Your task to perform on an android device: change timer sound Image 0: 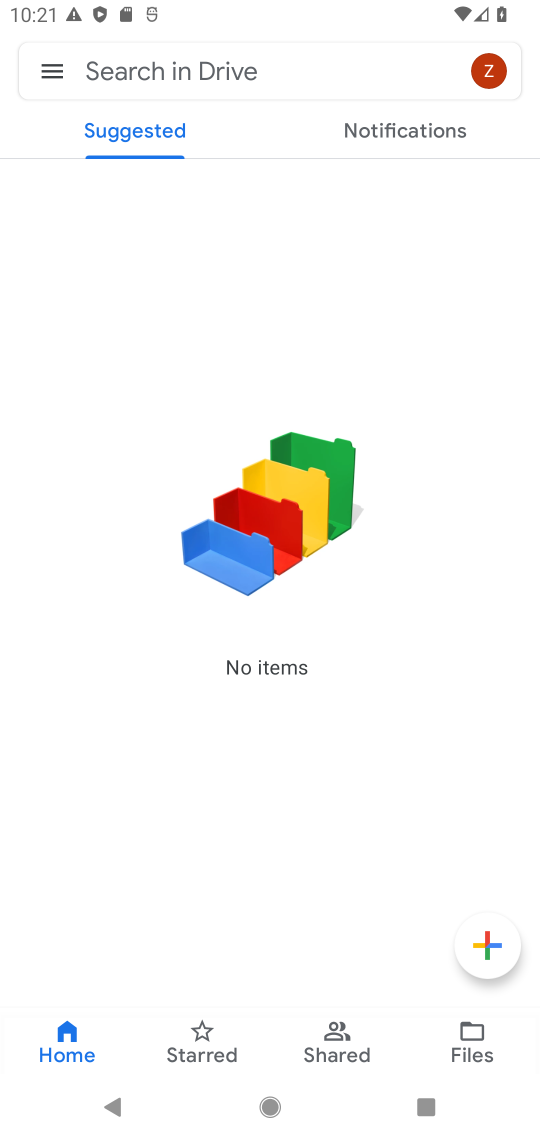
Step 0: press home button
Your task to perform on an android device: change timer sound Image 1: 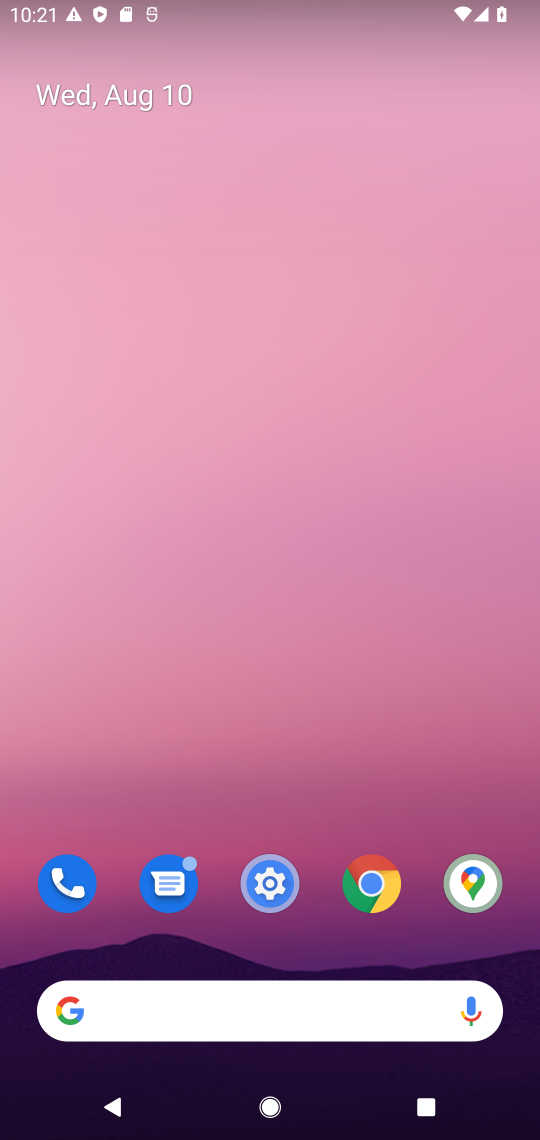
Step 1: drag from (306, 925) to (443, 246)
Your task to perform on an android device: change timer sound Image 2: 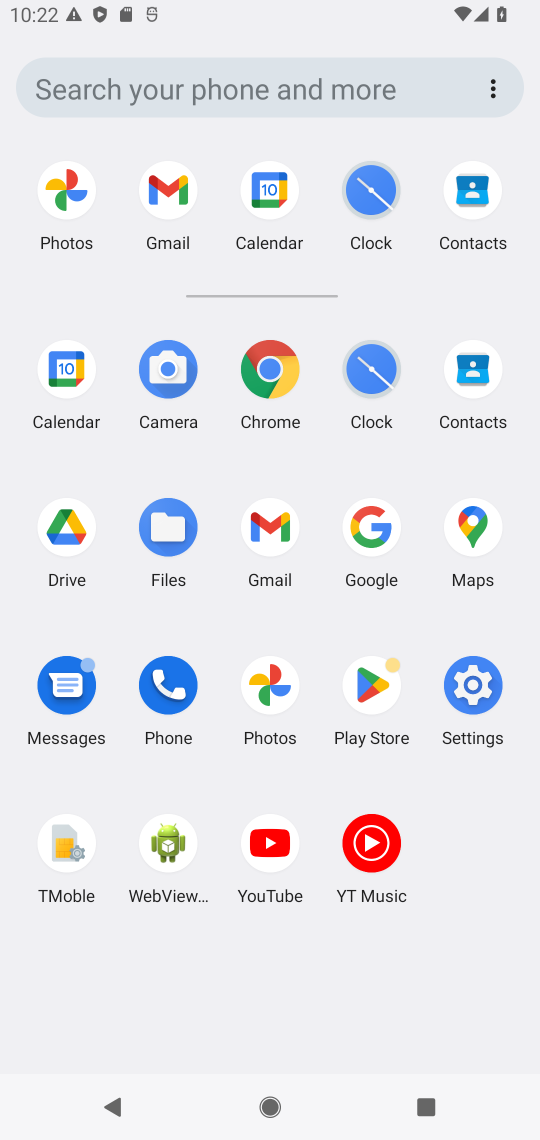
Step 2: click (382, 364)
Your task to perform on an android device: change timer sound Image 3: 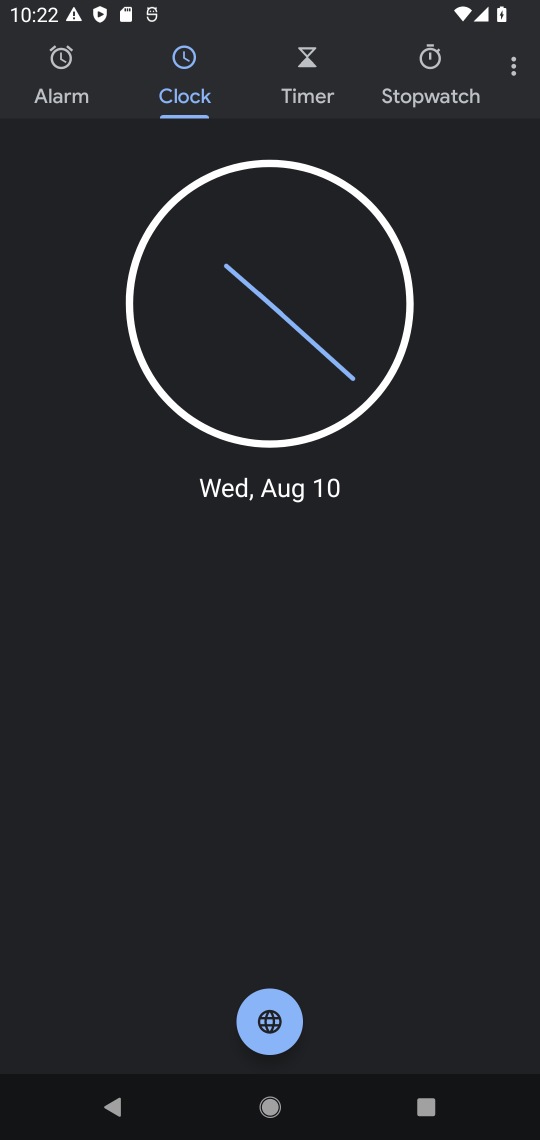
Step 3: click (315, 87)
Your task to perform on an android device: change timer sound Image 4: 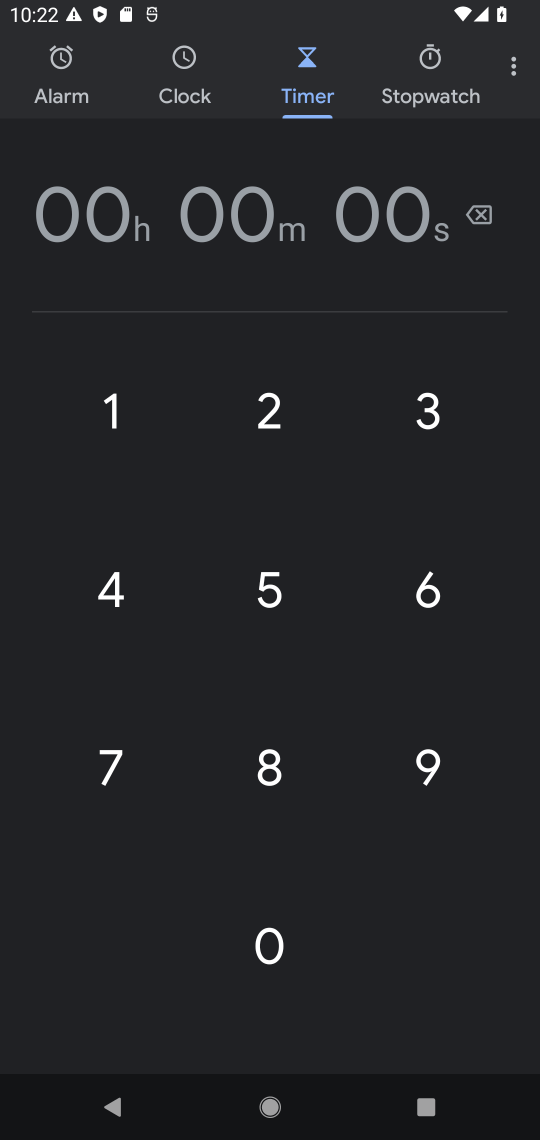
Step 4: click (276, 751)
Your task to perform on an android device: change timer sound Image 5: 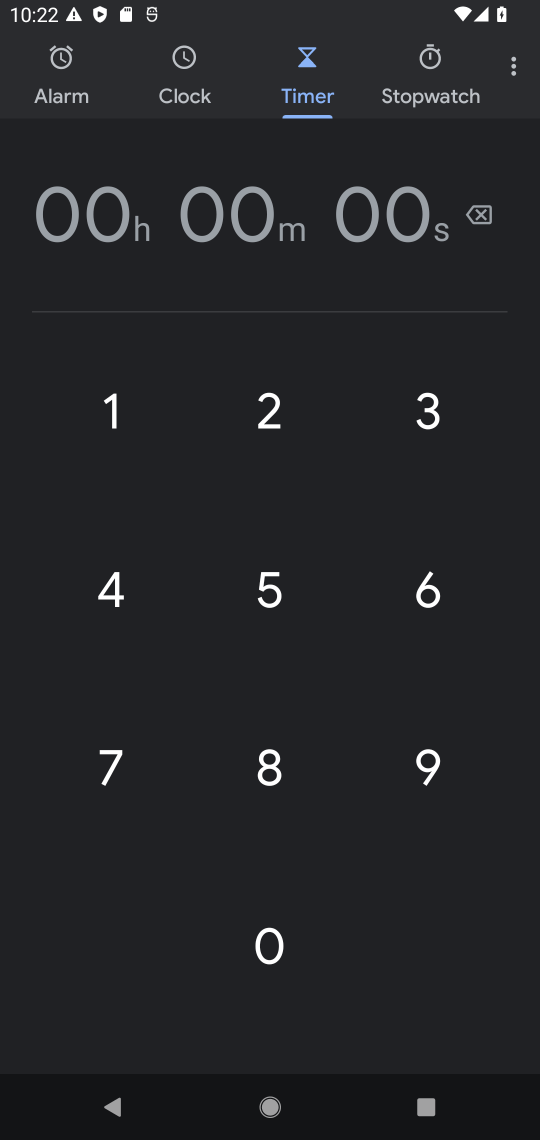
Step 5: click (276, 751)
Your task to perform on an android device: change timer sound Image 6: 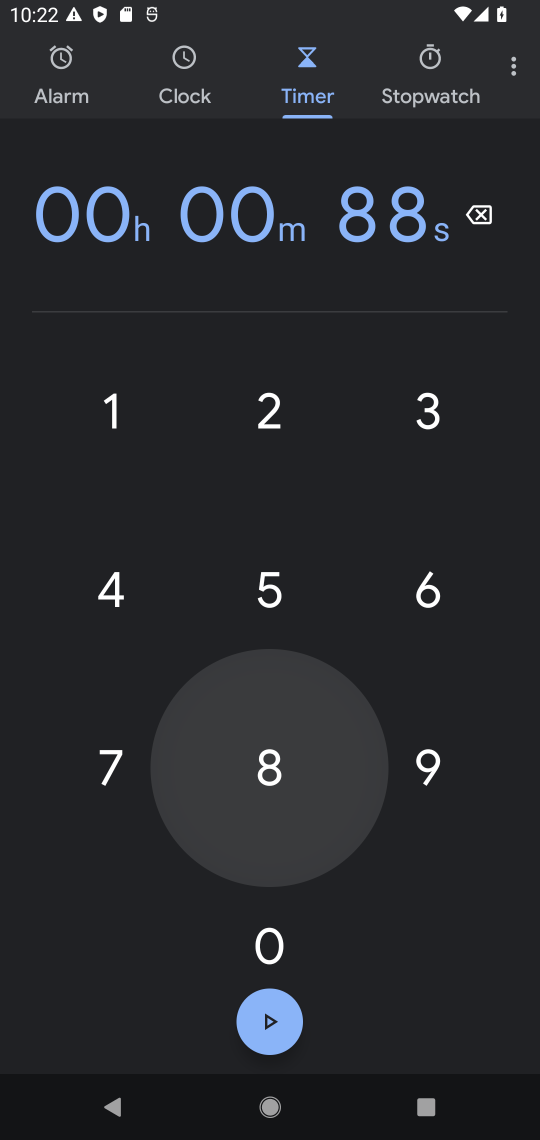
Step 6: click (102, 574)
Your task to perform on an android device: change timer sound Image 7: 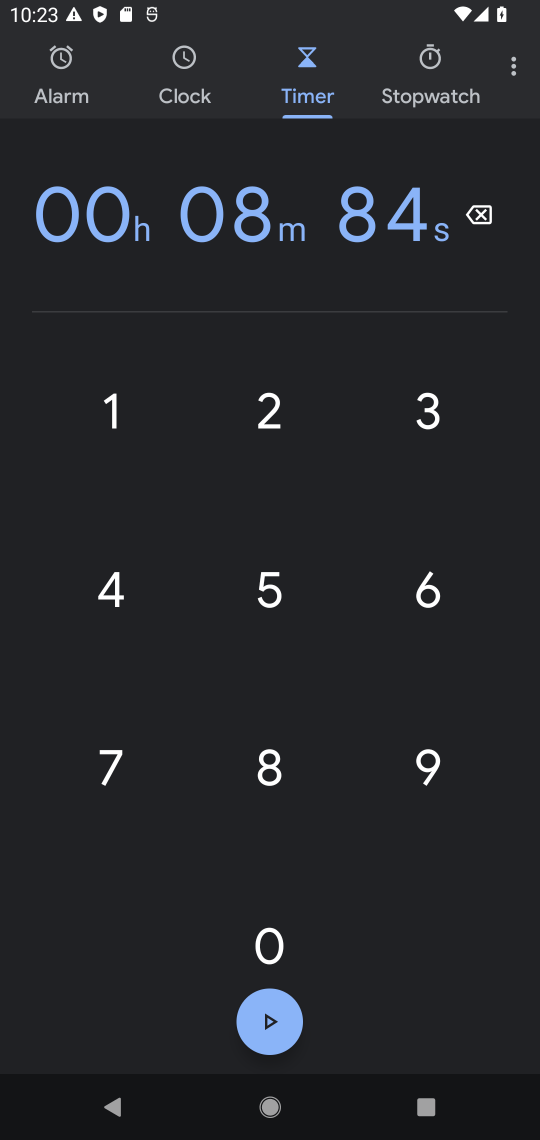
Step 7: click (278, 407)
Your task to perform on an android device: change timer sound Image 8: 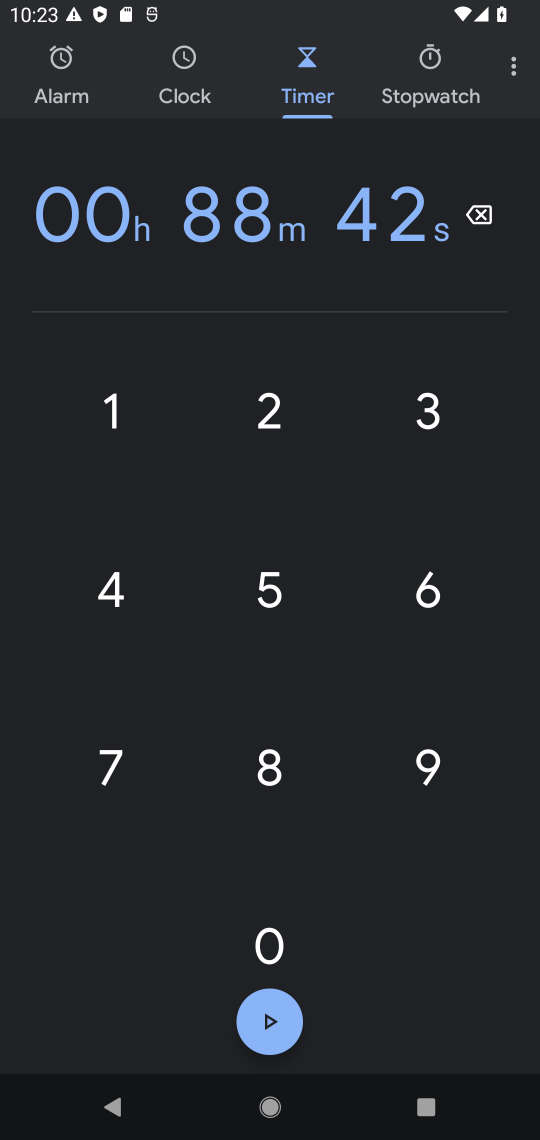
Step 8: click (255, 407)
Your task to perform on an android device: change timer sound Image 9: 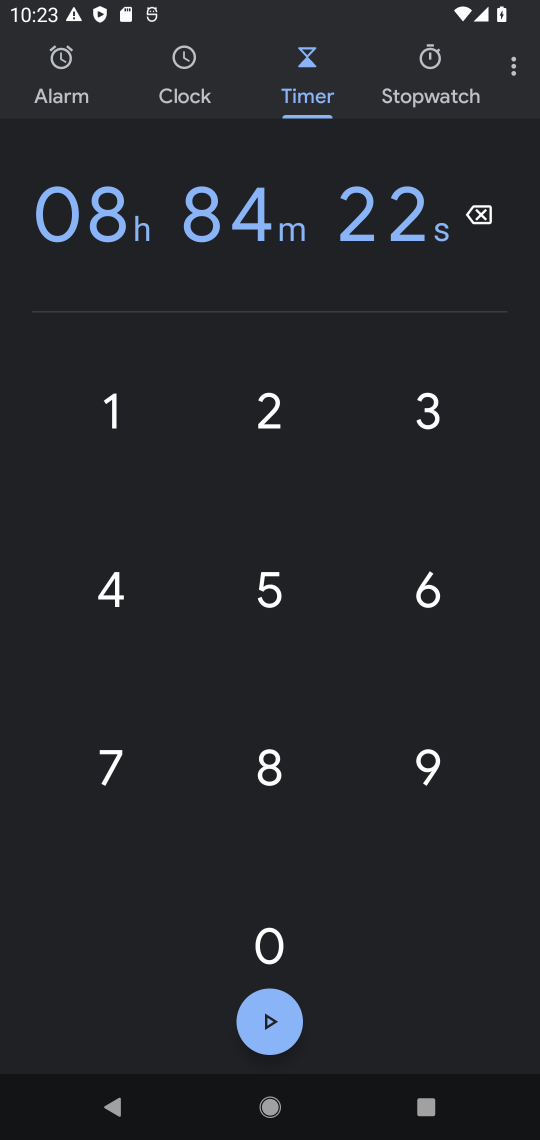
Step 9: task complete